Your task to perform on an android device: Open calendar and show me the first week of next month Image 0: 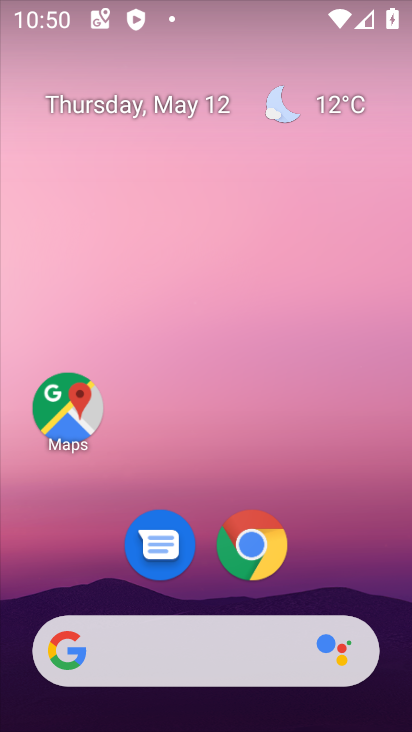
Step 0: drag from (210, 583) to (226, 88)
Your task to perform on an android device: Open calendar and show me the first week of next month Image 1: 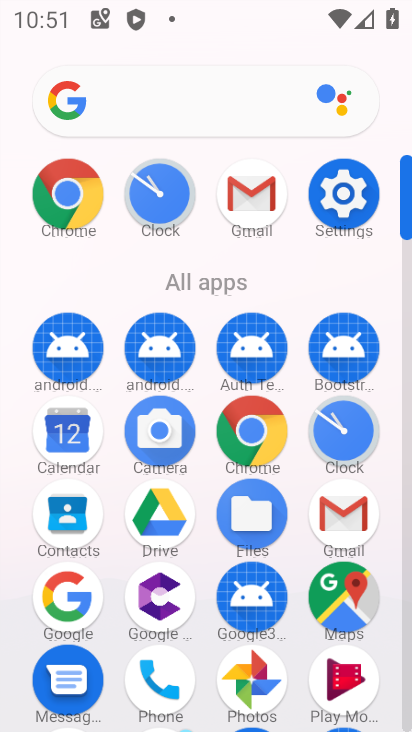
Step 1: click (66, 428)
Your task to perform on an android device: Open calendar and show me the first week of next month Image 2: 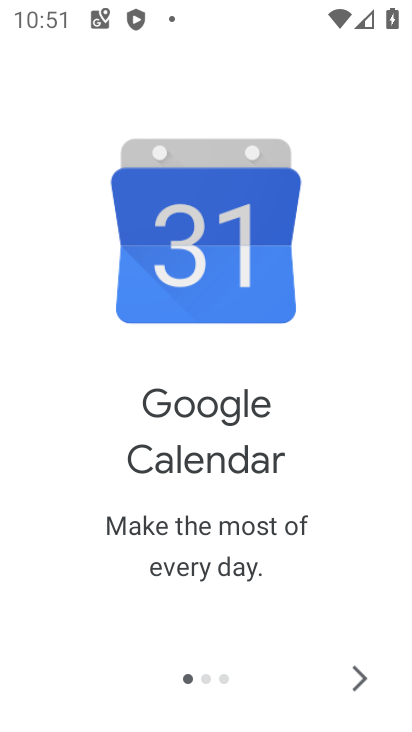
Step 2: click (351, 672)
Your task to perform on an android device: Open calendar and show me the first week of next month Image 3: 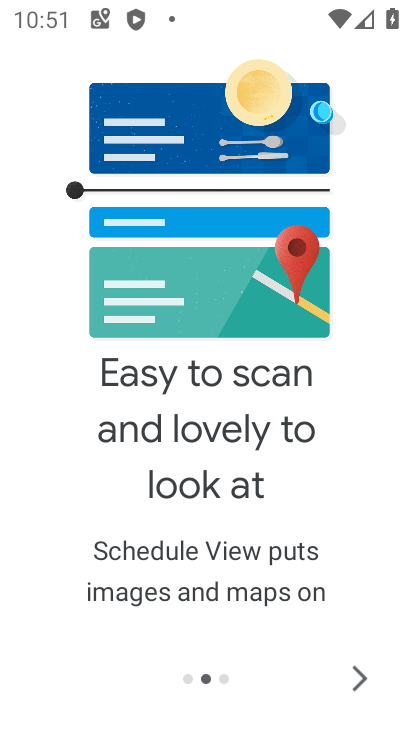
Step 3: click (351, 672)
Your task to perform on an android device: Open calendar and show me the first week of next month Image 4: 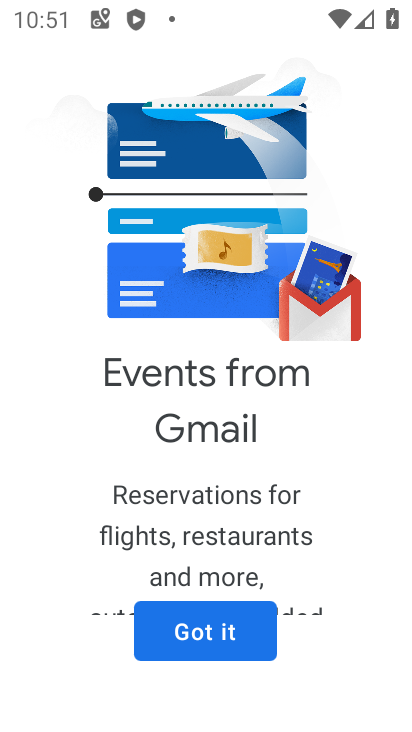
Step 4: click (215, 628)
Your task to perform on an android device: Open calendar and show me the first week of next month Image 5: 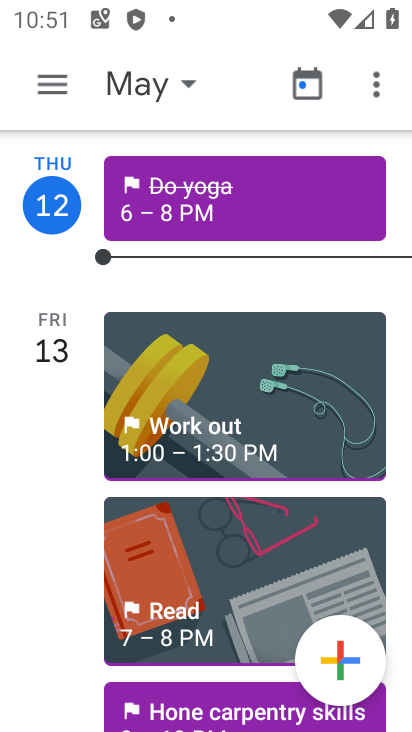
Step 5: click (57, 89)
Your task to perform on an android device: Open calendar and show me the first week of next month Image 6: 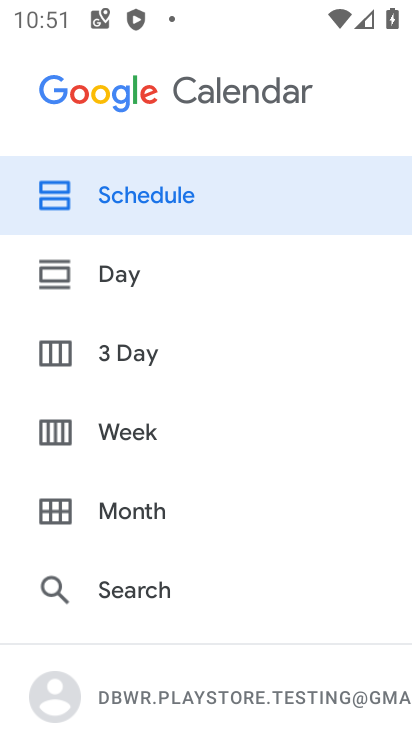
Step 6: click (165, 429)
Your task to perform on an android device: Open calendar and show me the first week of next month Image 7: 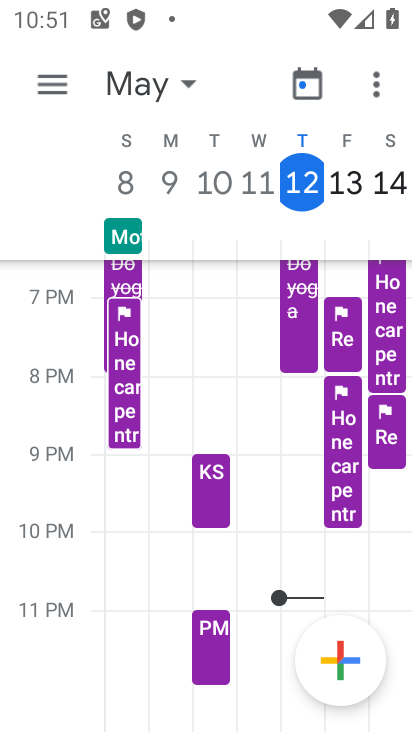
Step 7: drag from (389, 170) to (48, 174)
Your task to perform on an android device: Open calendar and show me the first week of next month Image 8: 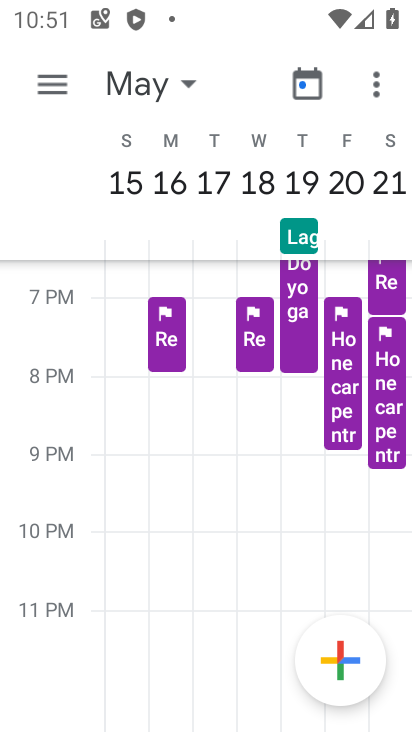
Step 8: drag from (387, 177) to (121, 178)
Your task to perform on an android device: Open calendar and show me the first week of next month Image 9: 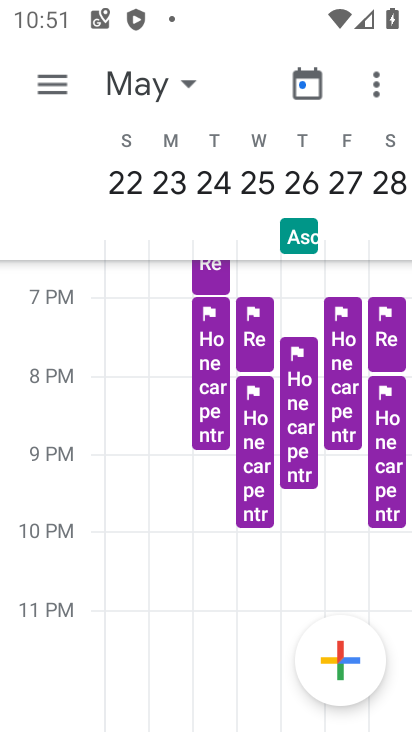
Step 9: drag from (390, 174) to (47, 186)
Your task to perform on an android device: Open calendar and show me the first week of next month Image 10: 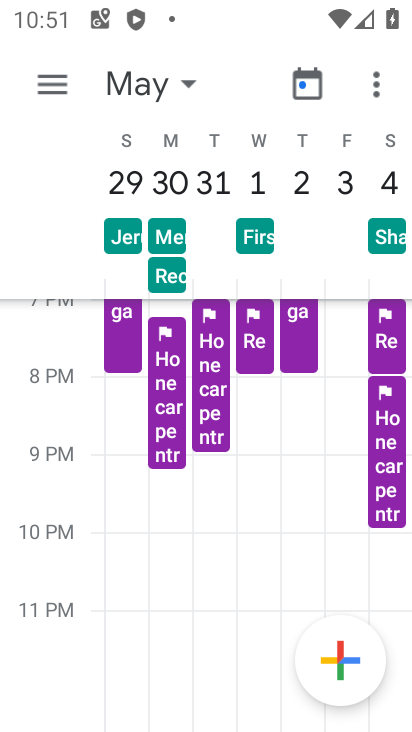
Step 10: drag from (393, 179) to (123, 175)
Your task to perform on an android device: Open calendar and show me the first week of next month Image 11: 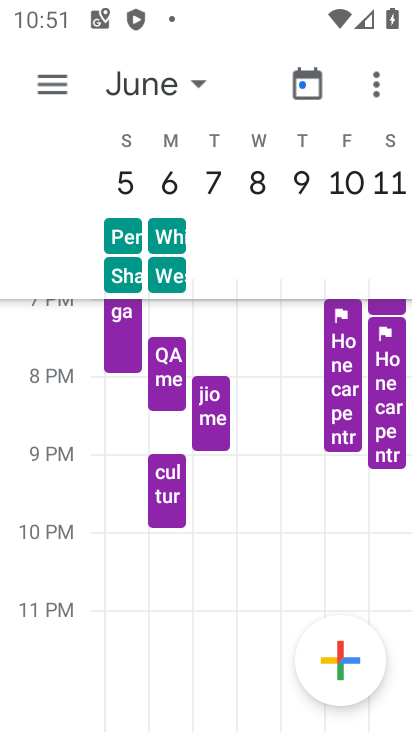
Step 11: drag from (122, 176) to (405, 185)
Your task to perform on an android device: Open calendar and show me the first week of next month Image 12: 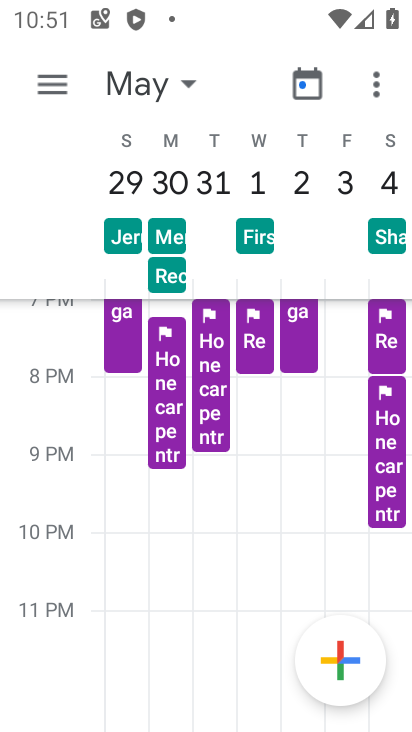
Step 12: click (252, 181)
Your task to perform on an android device: Open calendar and show me the first week of next month Image 13: 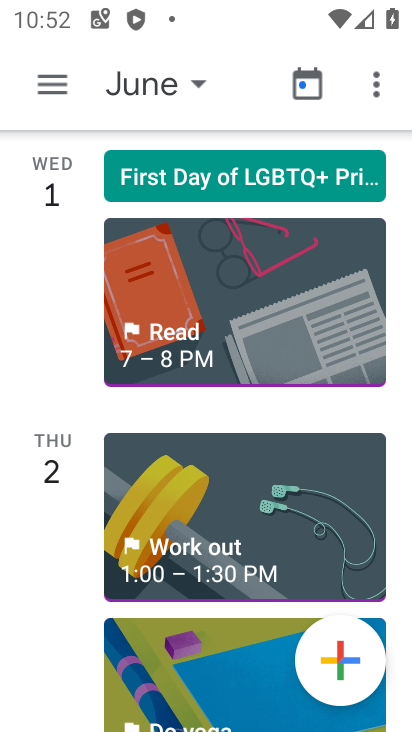
Step 13: task complete